Your task to perform on an android device: change the upload size in google photos Image 0: 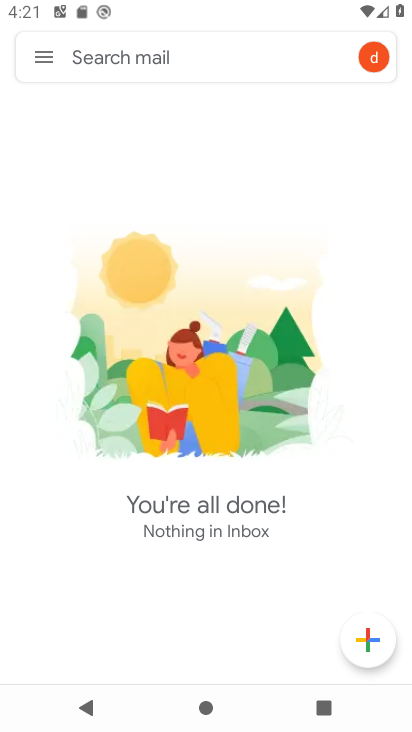
Step 0: press home button
Your task to perform on an android device: change the upload size in google photos Image 1: 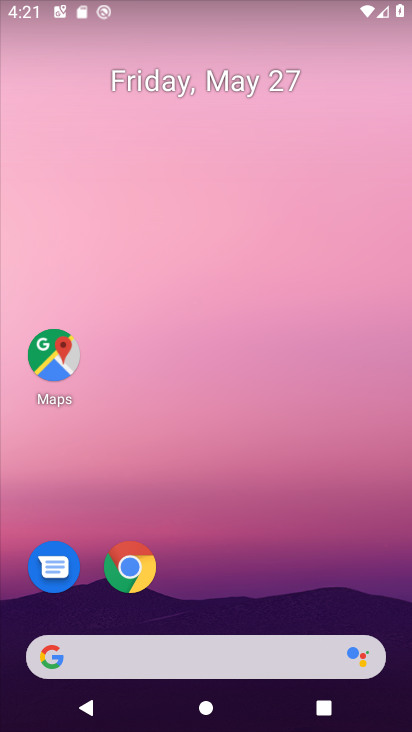
Step 1: drag from (183, 612) to (177, 87)
Your task to perform on an android device: change the upload size in google photos Image 2: 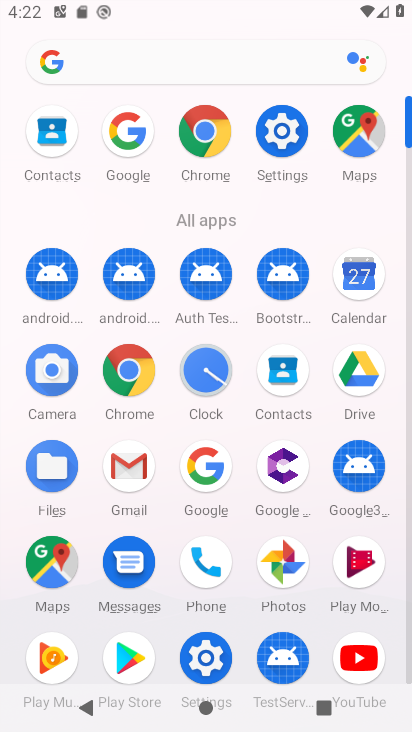
Step 2: click (282, 559)
Your task to perform on an android device: change the upload size in google photos Image 3: 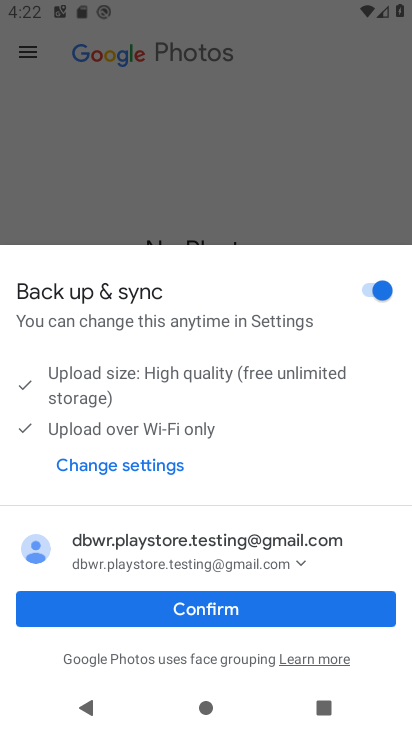
Step 3: click (107, 600)
Your task to perform on an android device: change the upload size in google photos Image 4: 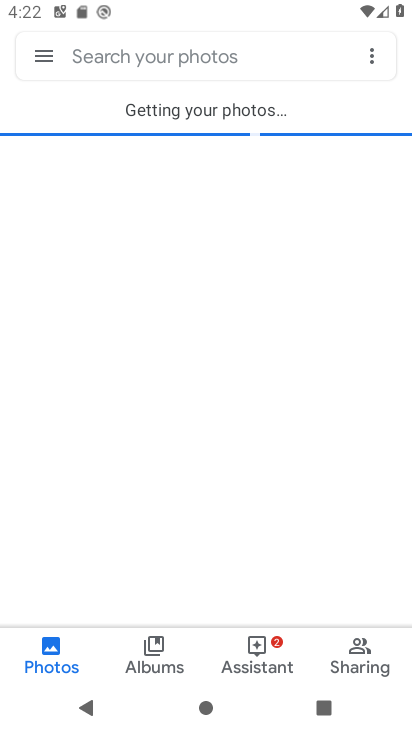
Step 4: click (43, 45)
Your task to perform on an android device: change the upload size in google photos Image 5: 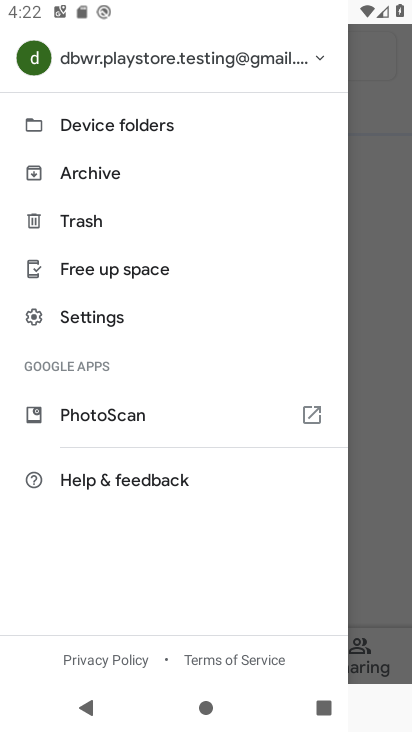
Step 5: click (112, 320)
Your task to perform on an android device: change the upload size in google photos Image 6: 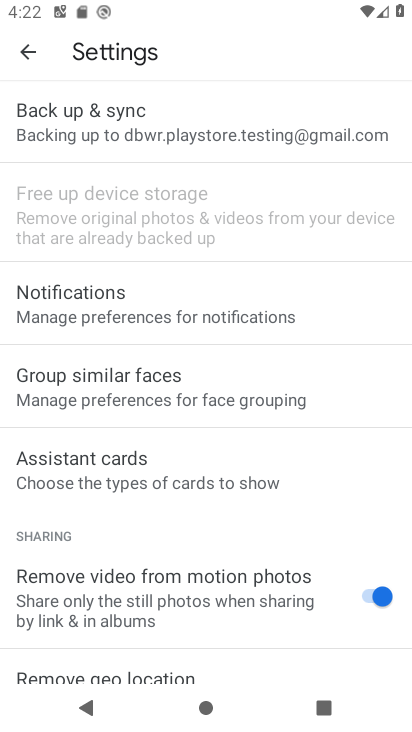
Step 6: click (124, 130)
Your task to perform on an android device: change the upload size in google photos Image 7: 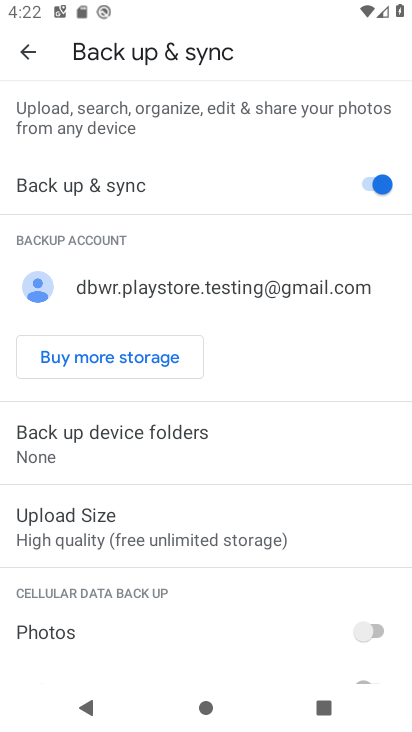
Step 7: click (78, 540)
Your task to perform on an android device: change the upload size in google photos Image 8: 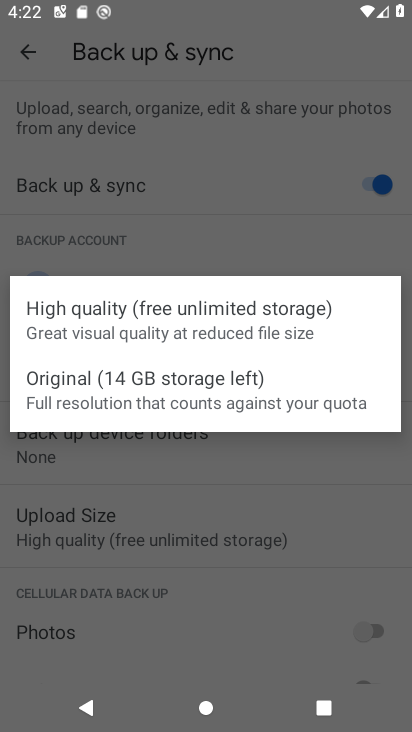
Step 8: click (81, 400)
Your task to perform on an android device: change the upload size in google photos Image 9: 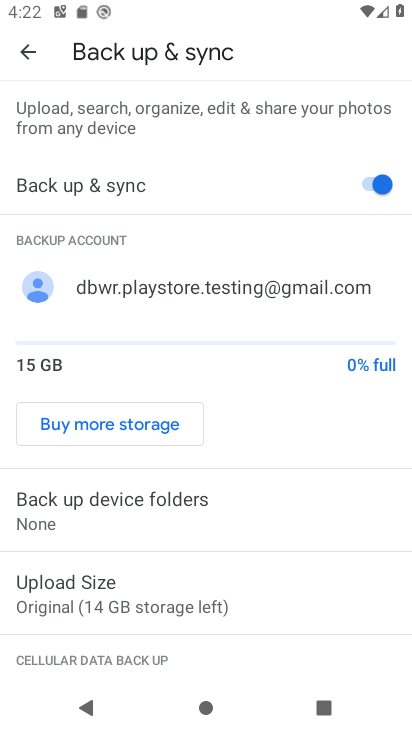
Step 9: task complete